Your task to perform on an android device: Go to eBay Image 0: 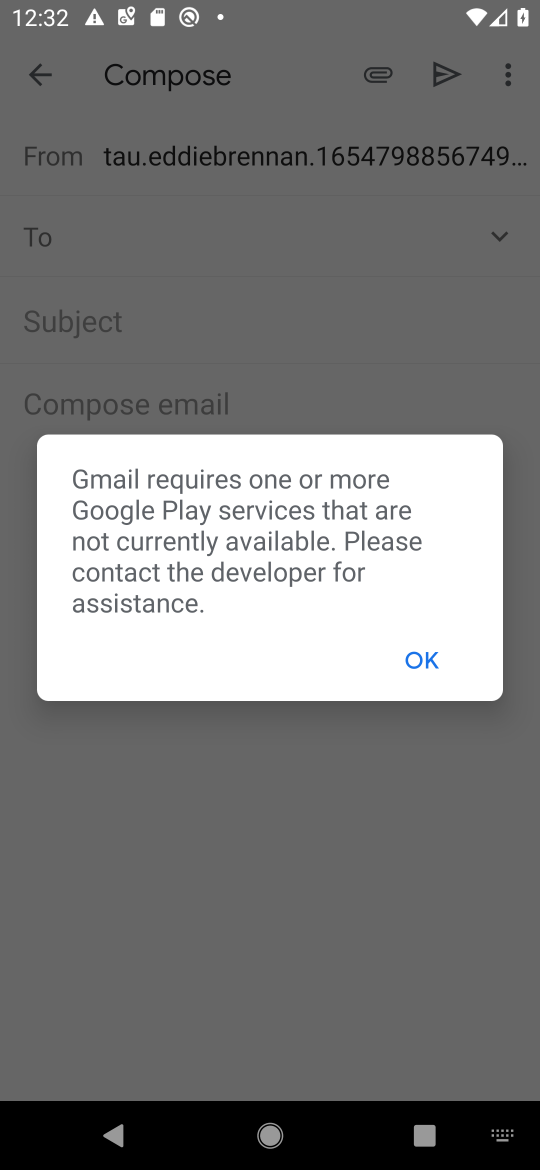
Step 0: press home button
Your task to perform on an android device: Go to eBay Image 1: 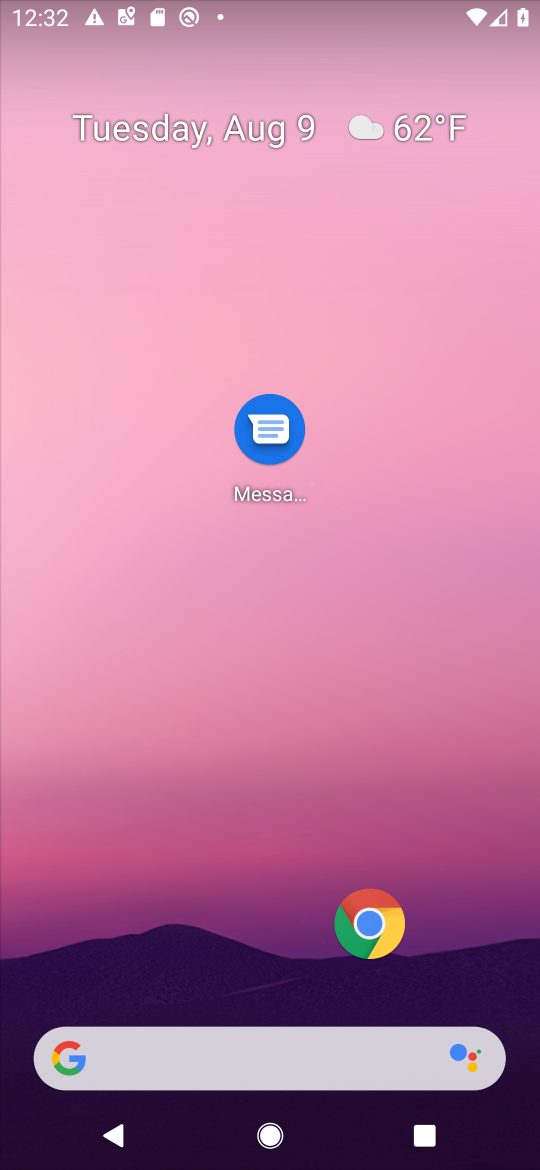
Step 1: click (91, 1043)
Your task to perform on an android device: Go to eBay Image 2: 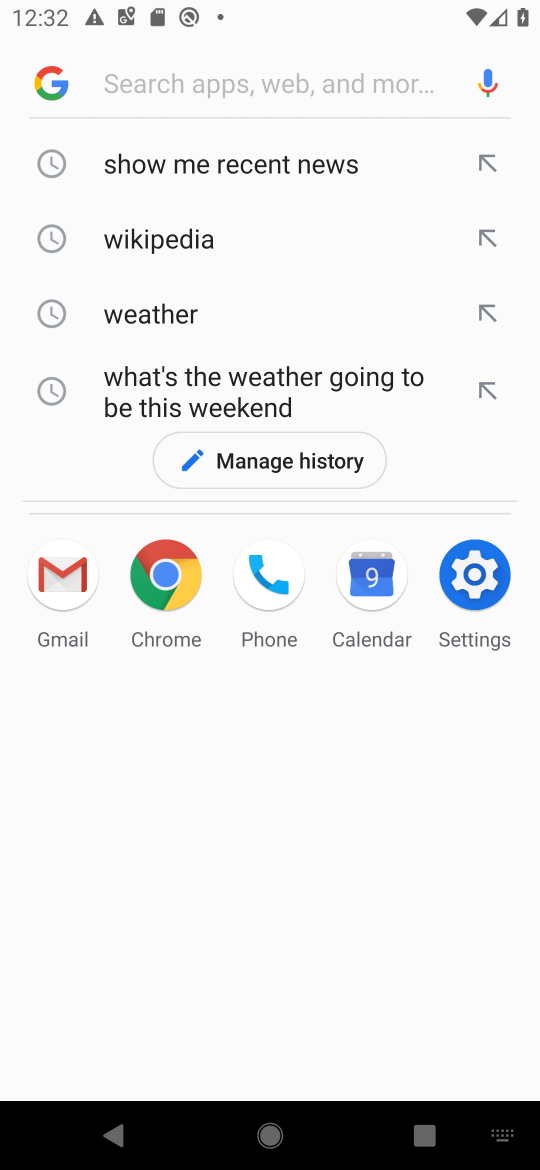
Step 2: type "eBay"
Your task to perform on an android device: Go to eBay Image 3: 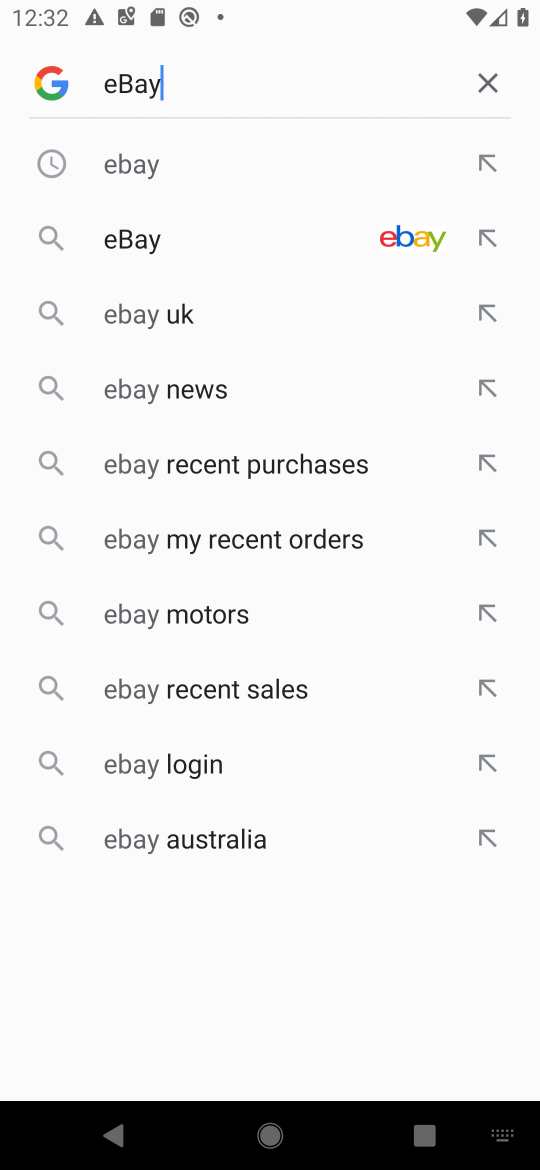
Step 3: click (138, 246)
Your task to perform on an android device: Go to eBay Image 4: 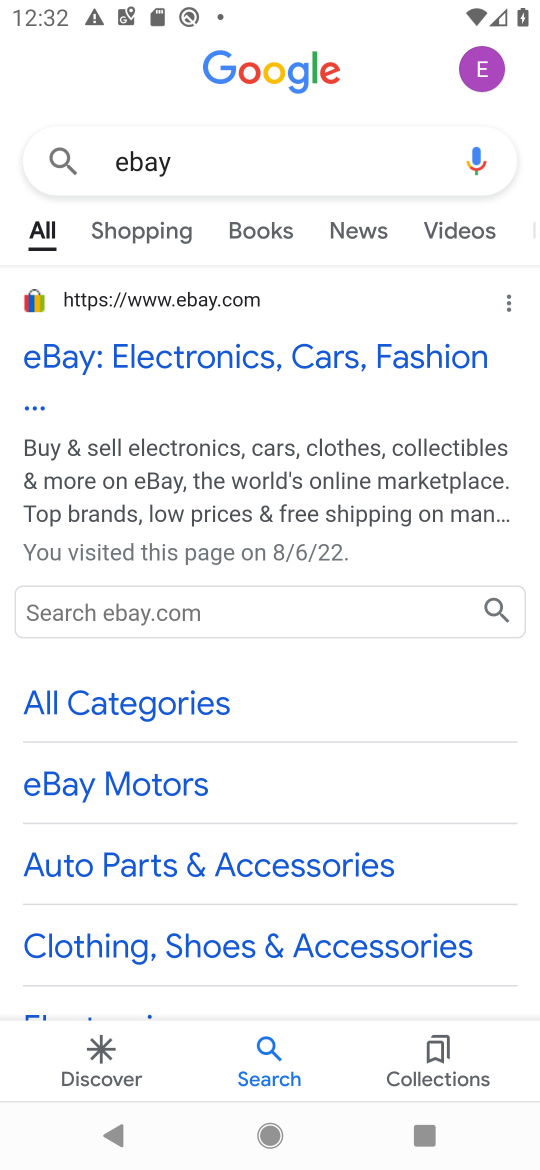
Step 4: task complete